Your task to perform on an android device: Open Wikipedia Image 0: 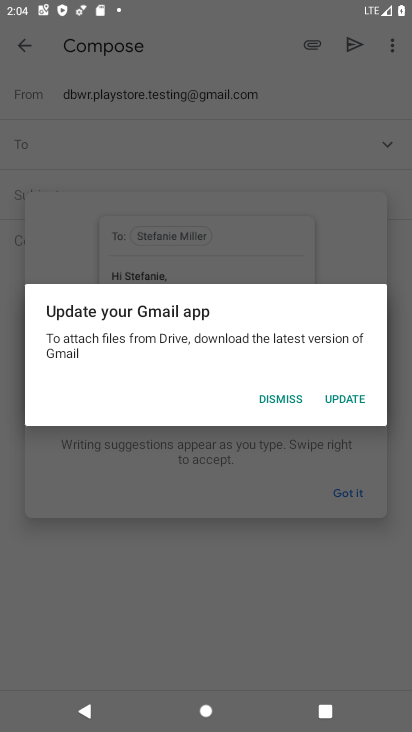
Step 0: press home button
Your task to perform on an android device: Open Wikipedia Image 1: 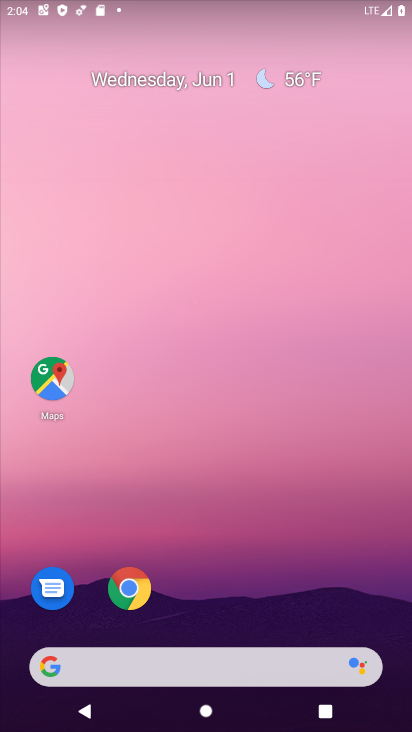
Step 1: drag from (230, 512) to (175, 12)
Your task to perform on an android device: Open Wikipedia Image 2: 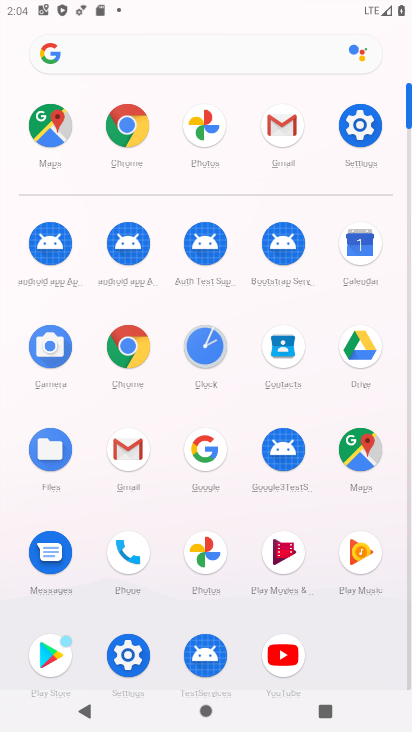
Step 2: click (132, 124)
Your task to perform on an android device: Open Wikipedia Image 3: 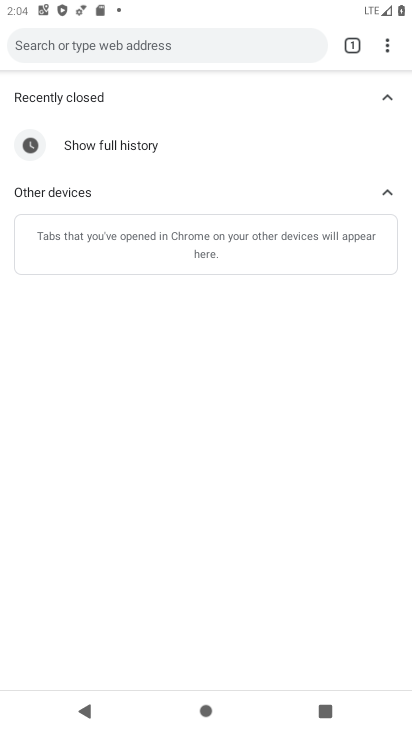
Step 3: click (392, 44)
Your task to perform on an android device: Open Wikipedia Image 4: 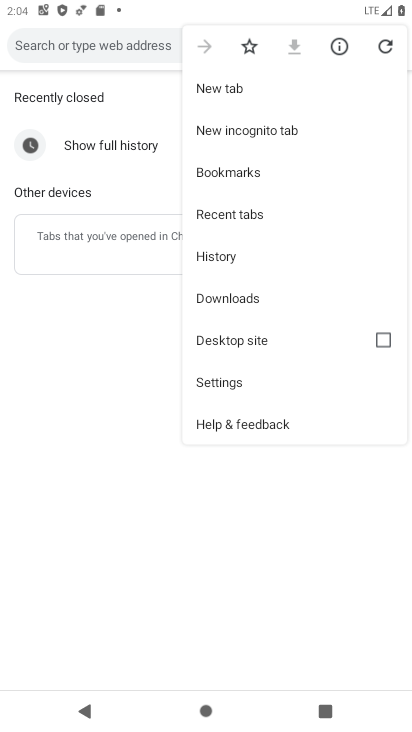
Step 4: click (245, 94)
Your task to perform on an android device: Open Wikipedia Image 5: 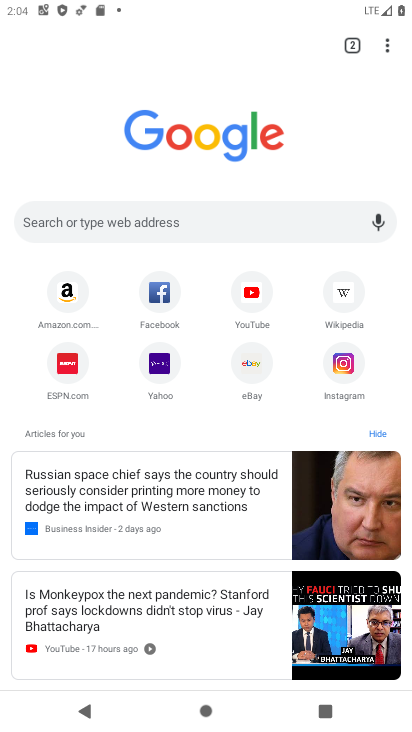
Step 5: click (350, 286)
Your task to perform on an android device: Open Wikipedia Image 6: 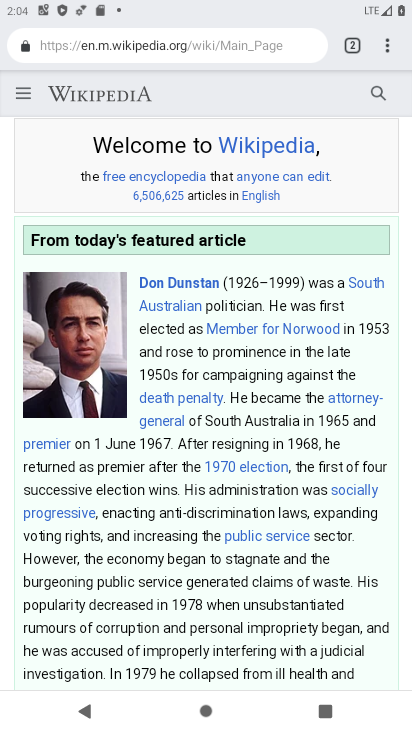
Step 6: task complete